Your task to perform on an android device: check google app version Image 0: 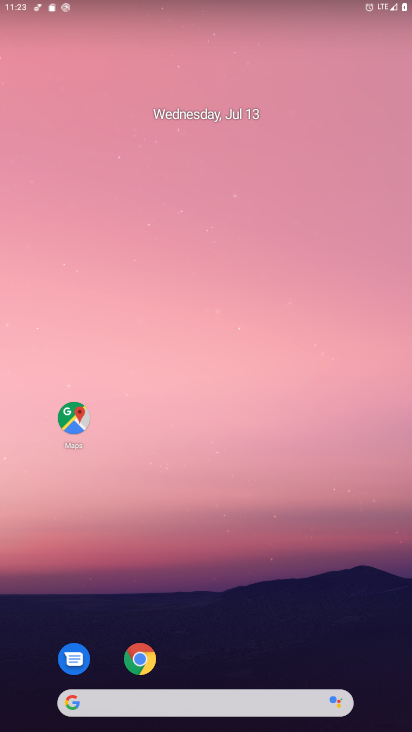
Step 0: drag from (220, 664) to (244, 10)
Your task to perform on an android device: check google app version Image 1: 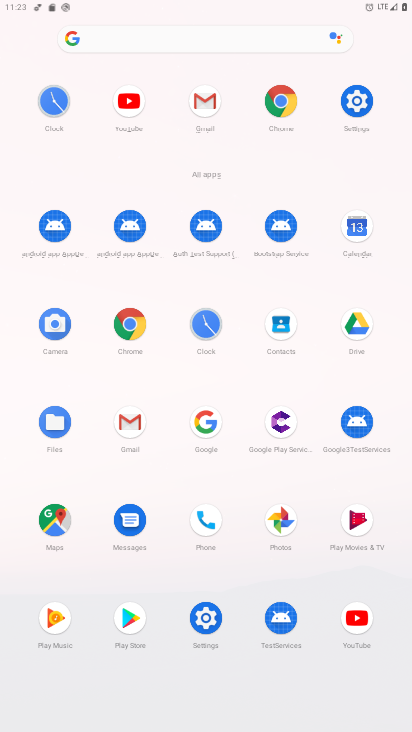
Step 1: click (207, 413)
Your task to perform on an android device: check google app version Image 2: 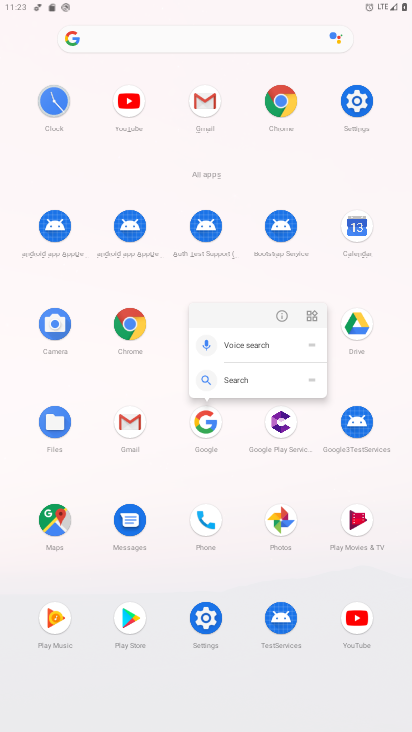
Step 2: click (201, 417)
Your task to perform on an android device: check google app version Image 3: 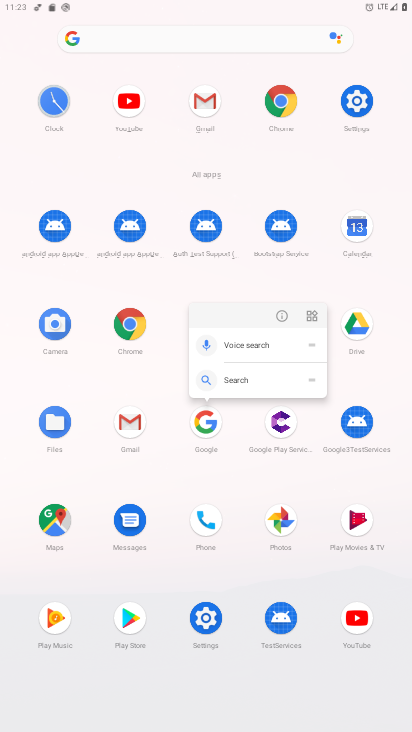
Step 3: click (206, 423)
Your task to perform on an android device: check google app version Image 4: 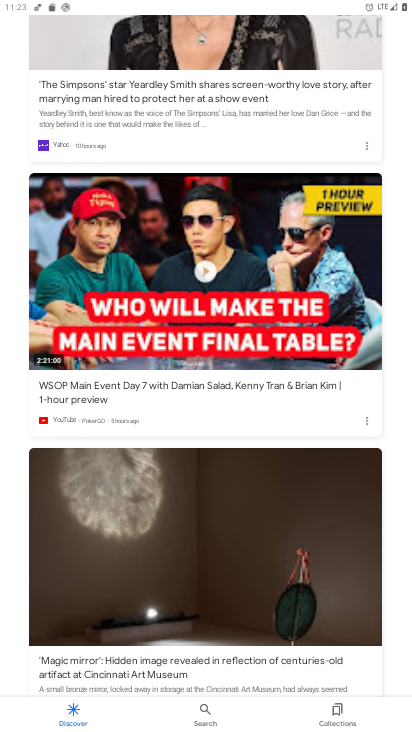
Step 4: click (71, 713)
Your task to perform on an android device: check google app version Image 5: 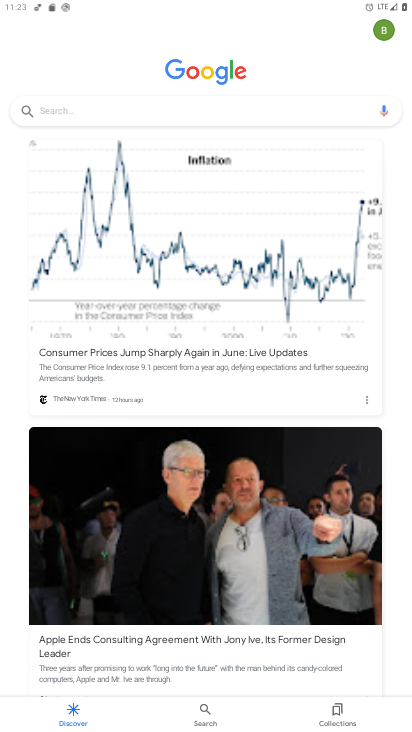
Step 5: click (383, 25)
Your task to perform on an android device: check google app version Image 6: 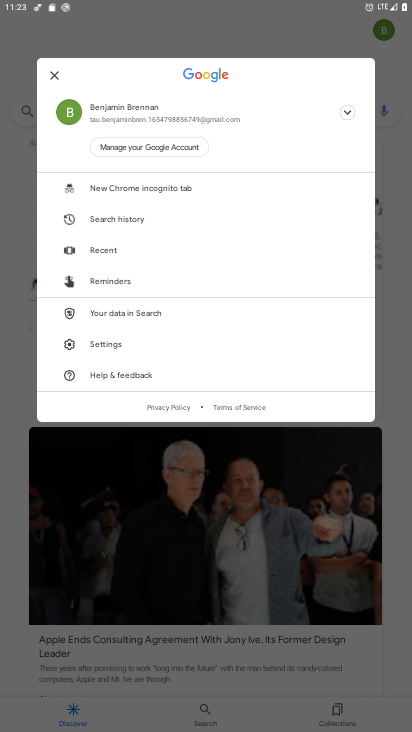
Step 6: click (122, 343)
Your task to perform on an android device: check google app version Image 7: 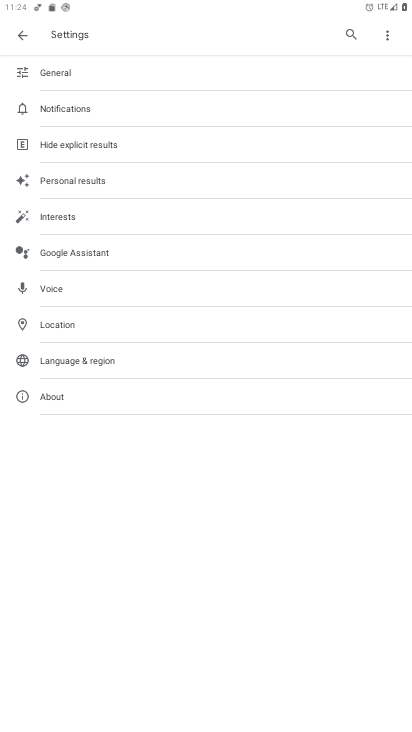
Step 7: click (70, 390)
Your task to perform on an android device: check google app version Image 8: 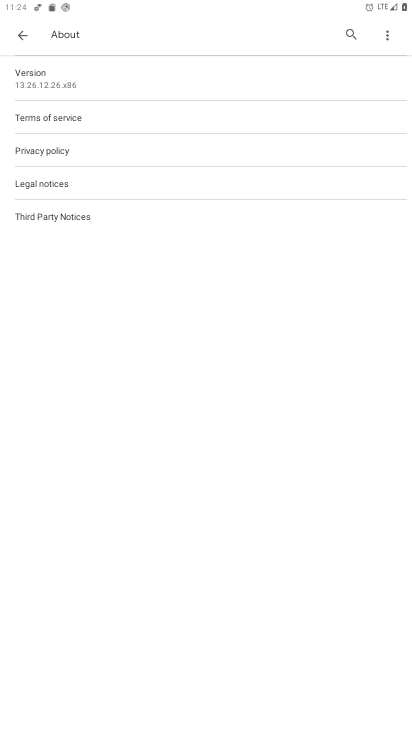
Step 8: task complete